Your task to perform on an android device: Open calendar and show me the third week of next month Image 0: 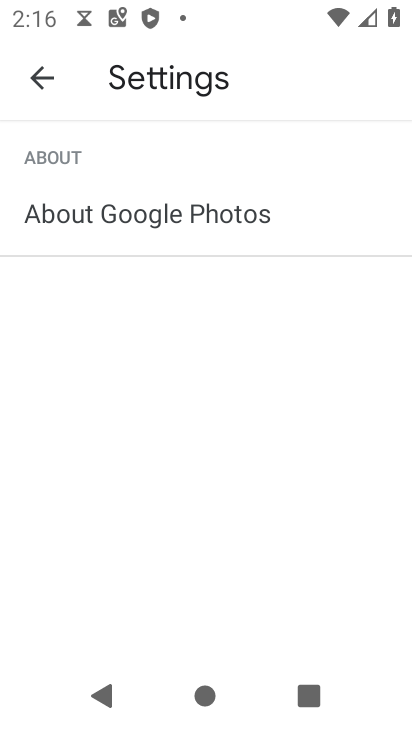
Step 0: press home button
Your task to perform on an android device: Open calendar and show me the third week of next month Image 1: 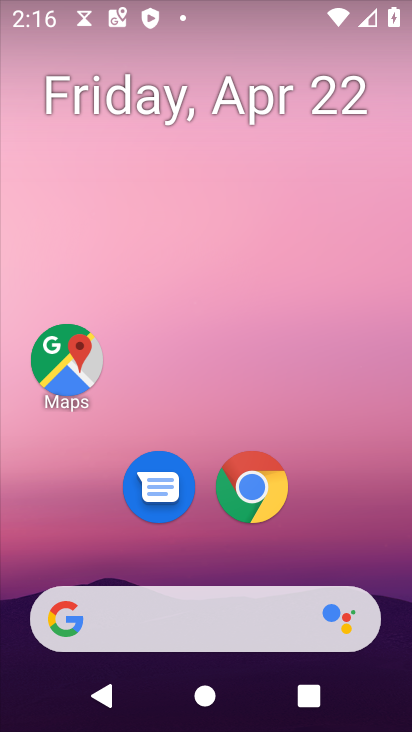
Step 1: drag from (186, 631) to (342, 94)
Your task to perform on an android device: Open calendar and show me the third week of next month Image 2: 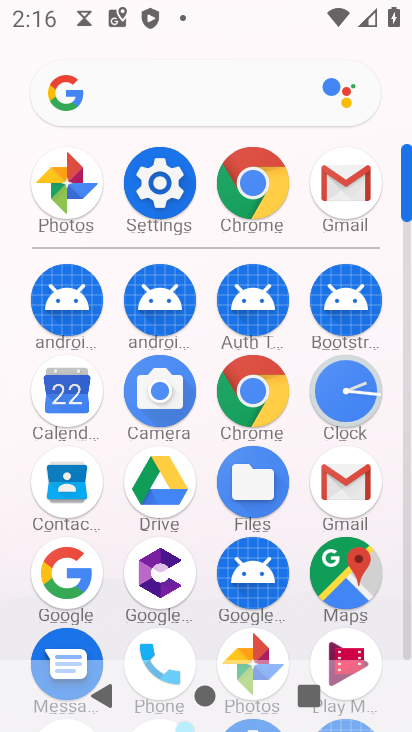
Step 2: click (64, 393)
Your task to perform on an android device: Open calendar and show me the third week of next month Image 3: 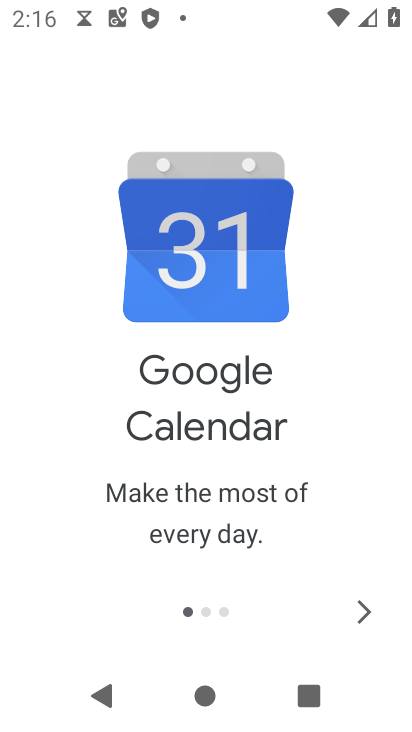
Step 3: click (368, 613)
Your task to perform on an android device: Open calendar and show me the third week of next month Image 4: 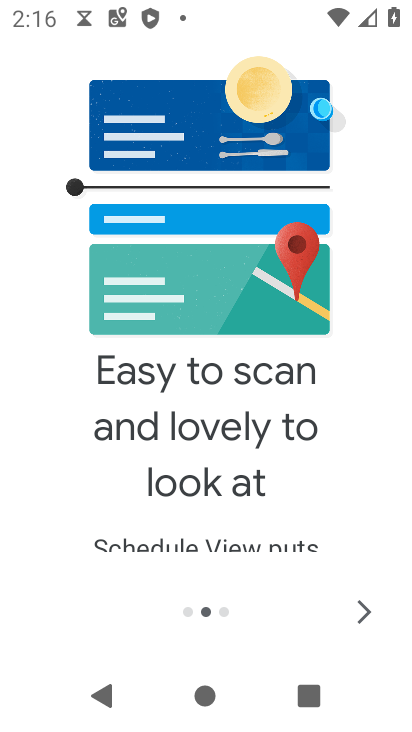
Step 4: click (368, 613)
Your task to perform on an android device: Open calendar and show me the third week of next month Image 5: 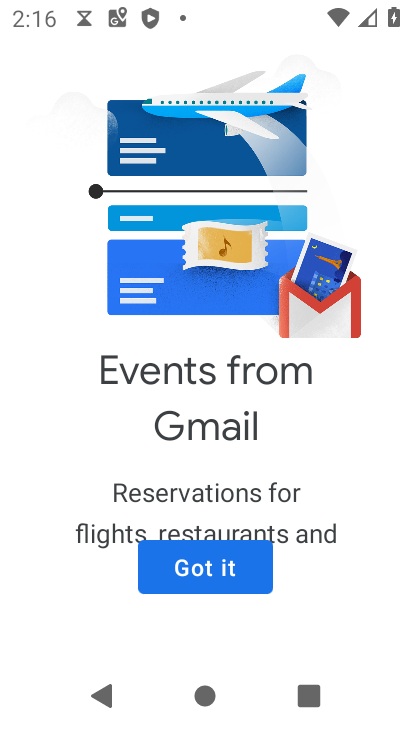
Step 5: click (220, 567)
Your task to perform on an android device: Open calendar and show me the third week of next month Image 6: 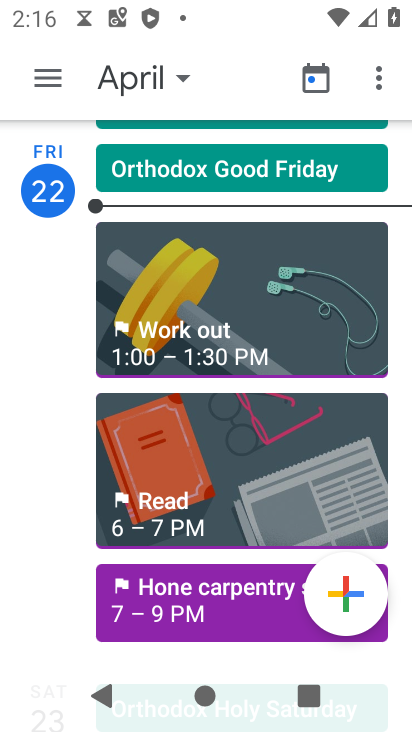
Step 6: click (48, 77)
Your task to perform on an android device: Open calendar and show me the third week of next month Image 7: 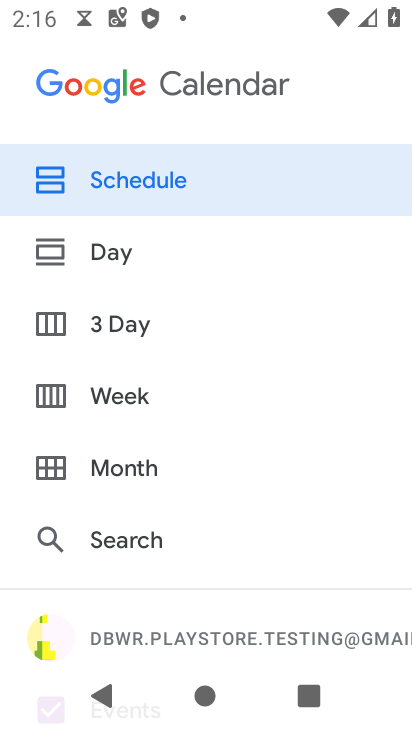
Step 7: press back button
Your task to perform on an android device: Open calendar and show me the third week of next month Image 8: 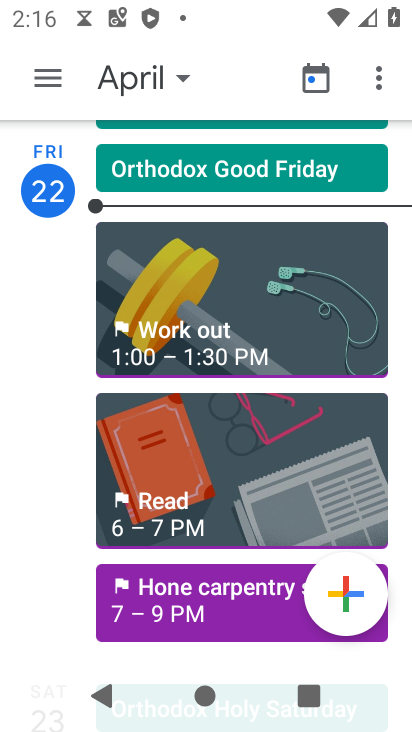
Step 8: click (141, 83)
Your task to perform on an android device: Open calendar and show me the third week of next month Image 9: 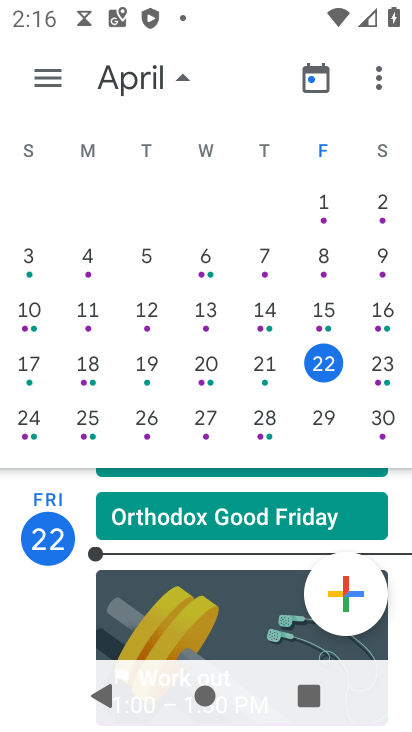
Step 9: drag from (376, 393) to (13, 365)
Your task to perform on an android device: Open calendar and show me the third week of next month Image 10: 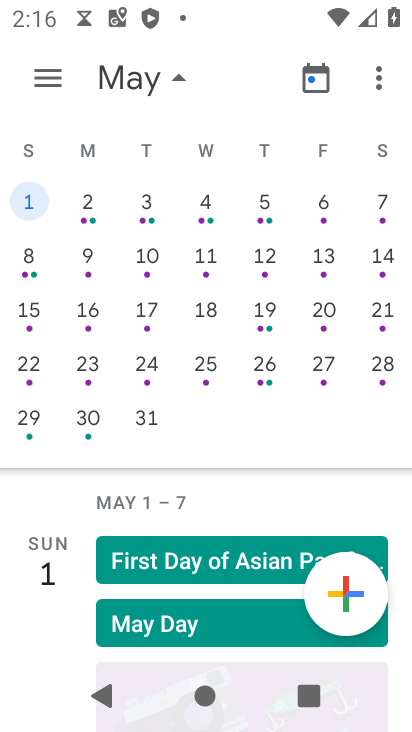
Step 10: click (28, 310)
Your task to perform on an android device: Open calendar and show me the third week of next month Image 11: 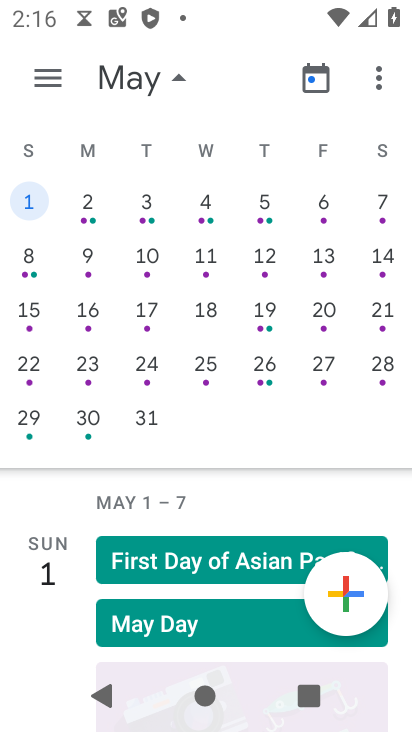
Step 11: click (32, 310)
Your task to perform on an android device: Open calendar and show me the third week of next month Image 12: 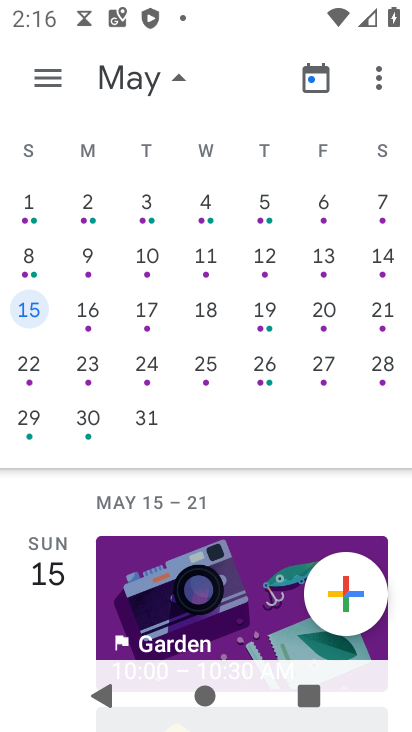
Step 12: click (46, 82)
Your task to perform on an android device: Open calendar and show me the third week of next month Image 13: 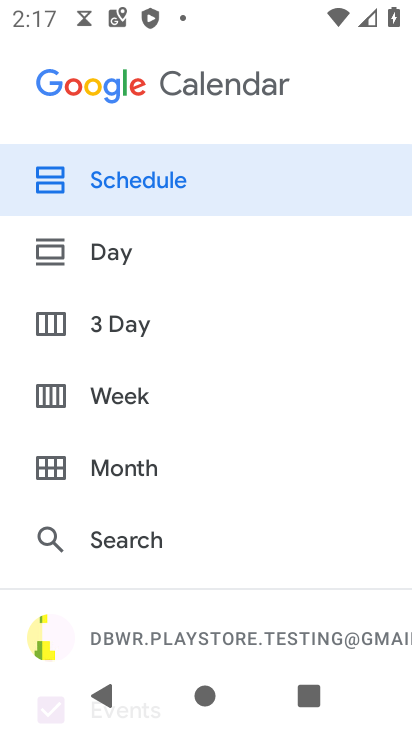
Step 13: click (121, 397)
Your task to perform on an android device: Open calendar and show me the third week of next month Image 14: 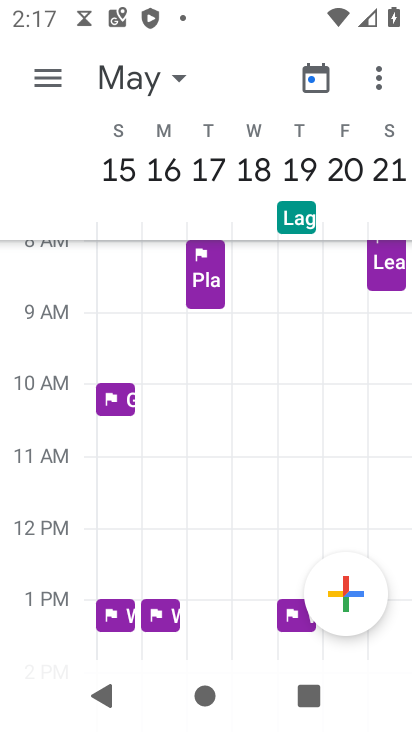
Step 14: task complete